Your task to perform on an android device: Search for "lg ultragear" on ebay, select the first entry, and add it to the cart. Image 0: 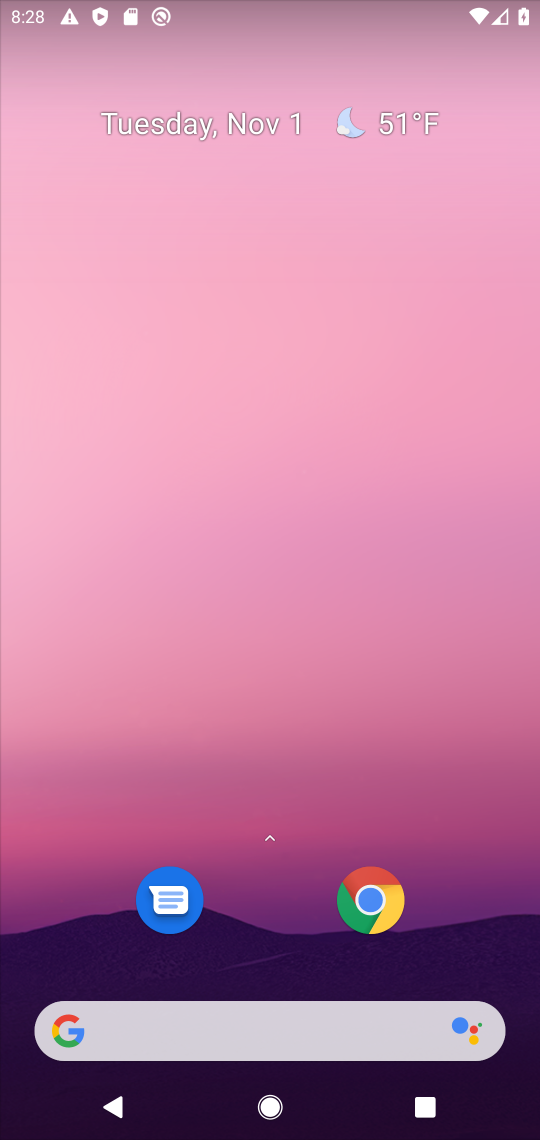
Step 0: drag from (353, 1100) to (342, 42)
Your task to perform on an android device: Search for "lg ultragear" on ebay, select the first entry, and add it to the cart. Image 1: 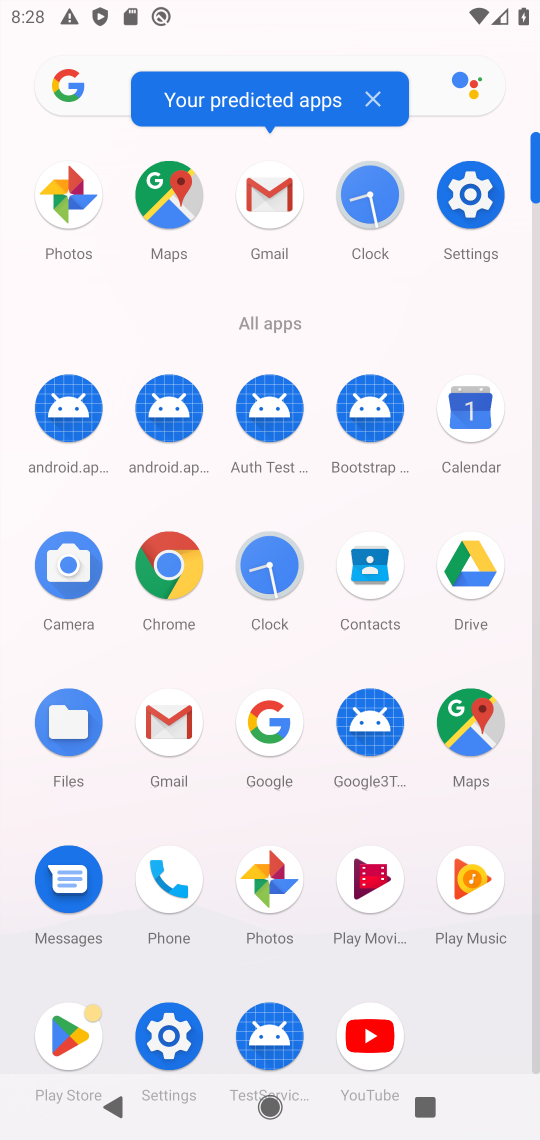
Step 1: click (172, 552)
Your task to perform on an android device: Search for "lg ultragear" on ebay, select the first entry, and add it to the cart. Image 2: 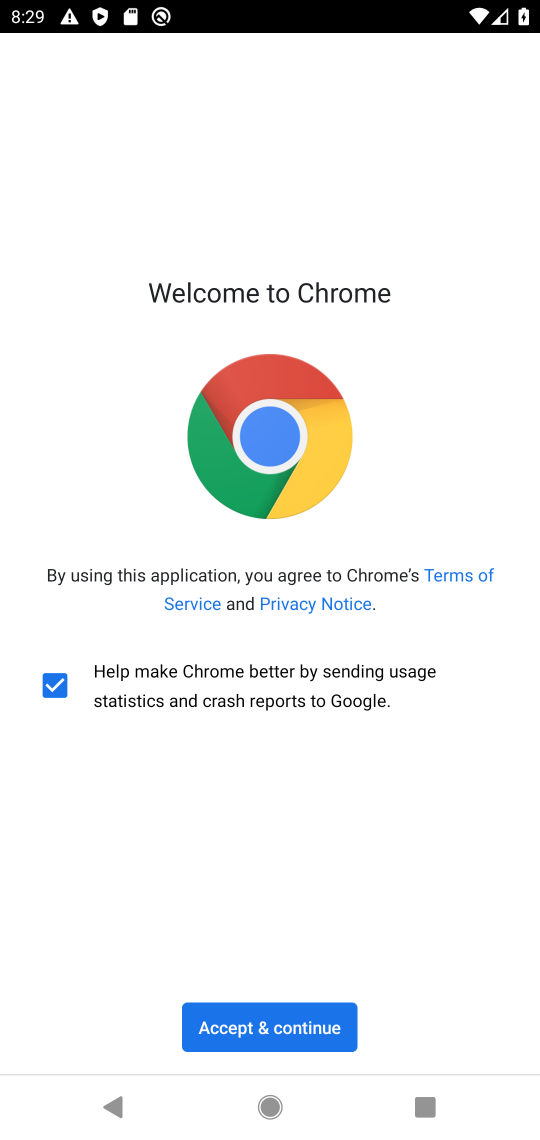
Step 2: click (252, 1024)
Your task to perform on an android device: Search for "lg ultragear" on ebay, select the first entry, and add it to the cart. Image 3: 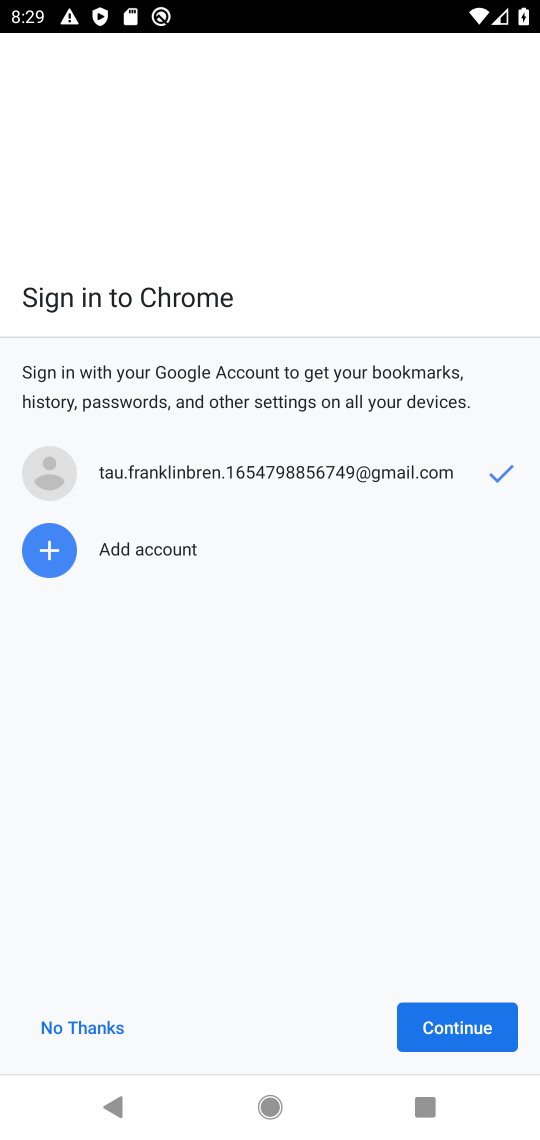
Step 3: click (446, 1030)
Your task to perform on an android device: Search for "lg ultragear" on ebay, select the first entry, and add it to the cart. Image 4: 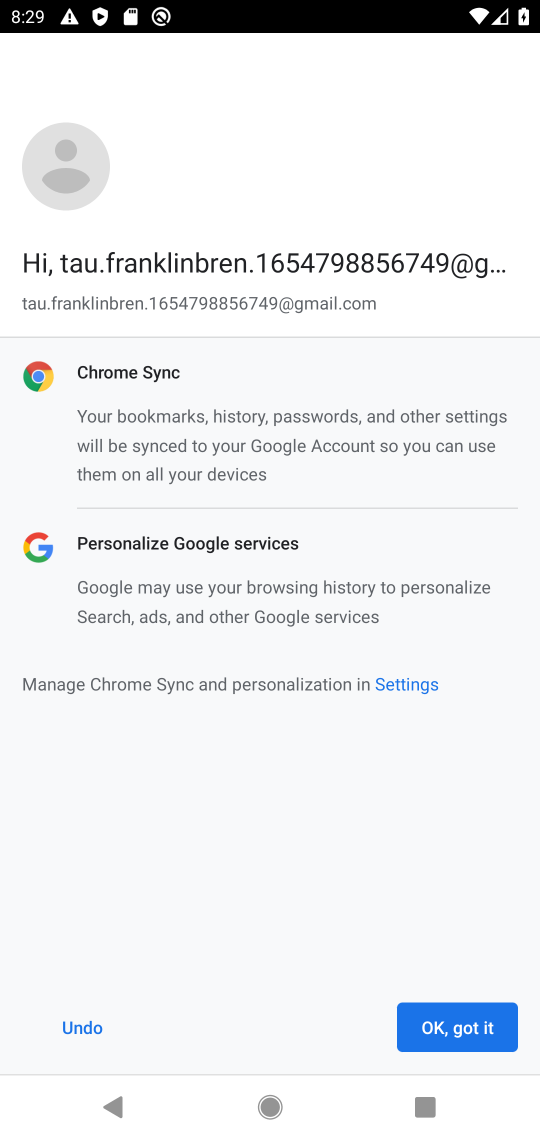
Step 4: click (443, 1028)
Your task to perform on an android device: Search for "lg ultragear" on ebay, select the first entry, and add it to the cart. Image 5: 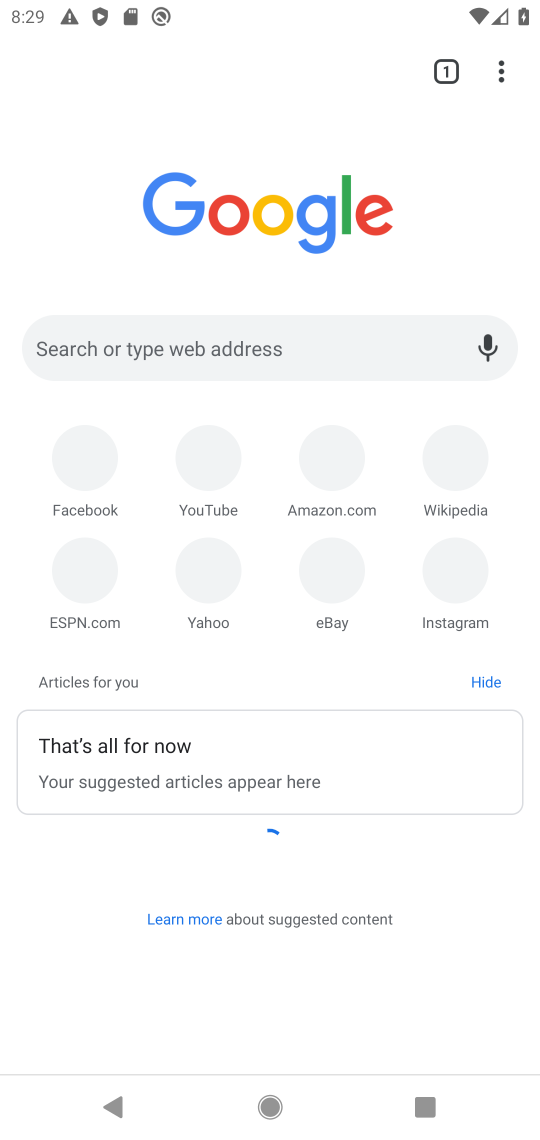
Step 5: click (224, 335)
Your task to perform on an android device: Search for "lg ultragear" on ebay, select the first entry, and add it to the cart. Image 6: 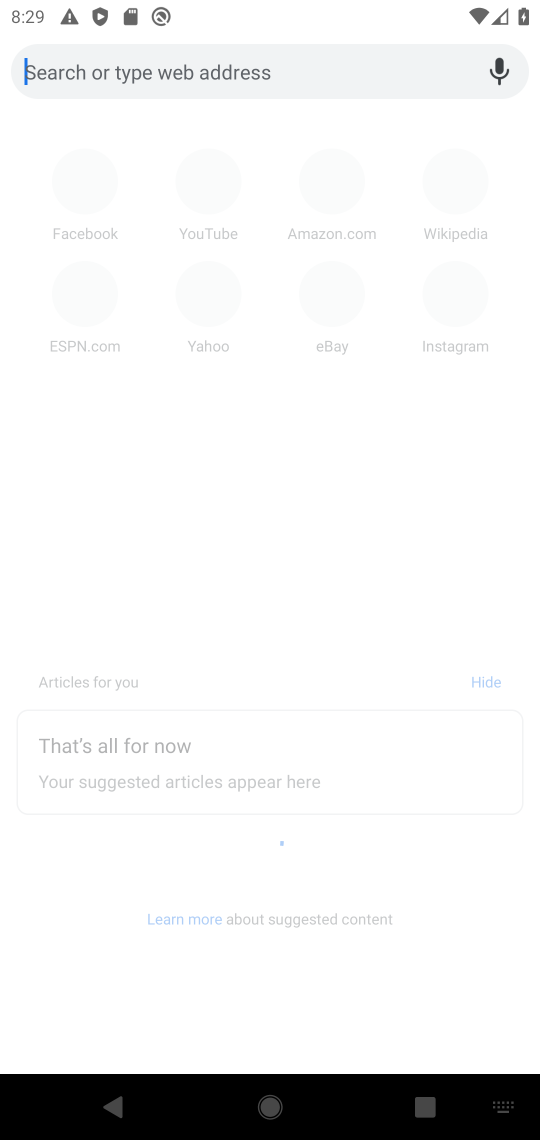
Step 6: type "ebay"
Your task to perform on an android device: Search for "lg ultragear" on ebay, select the first entry, and add it to the cart. Image 7: 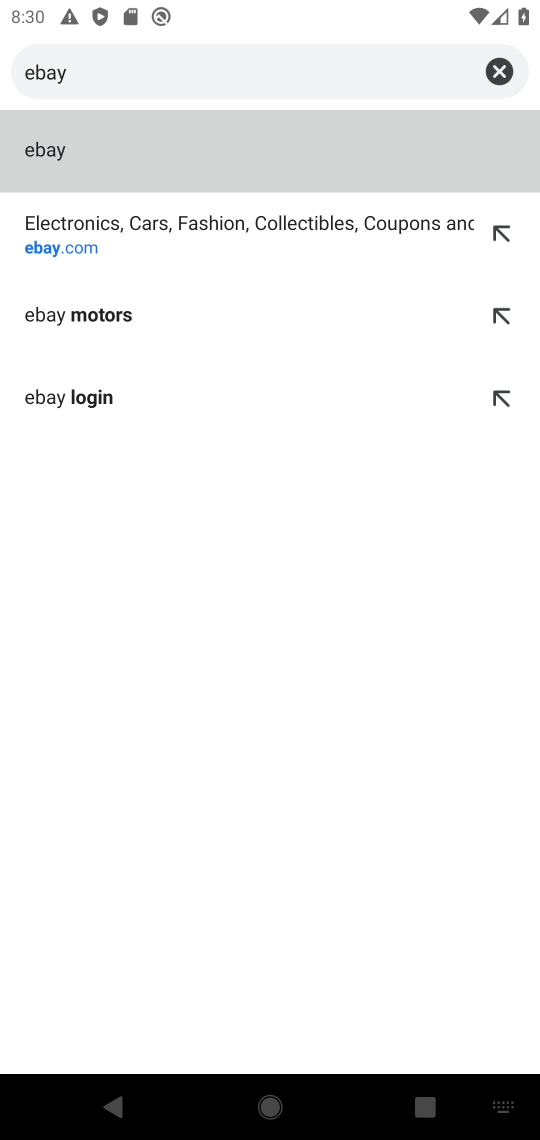
Step 7: click (29, 248)
Your task to perform on an android device: Search for "lg ultragear" on ebay, select the first entry, and add it to the cart. Image 8: 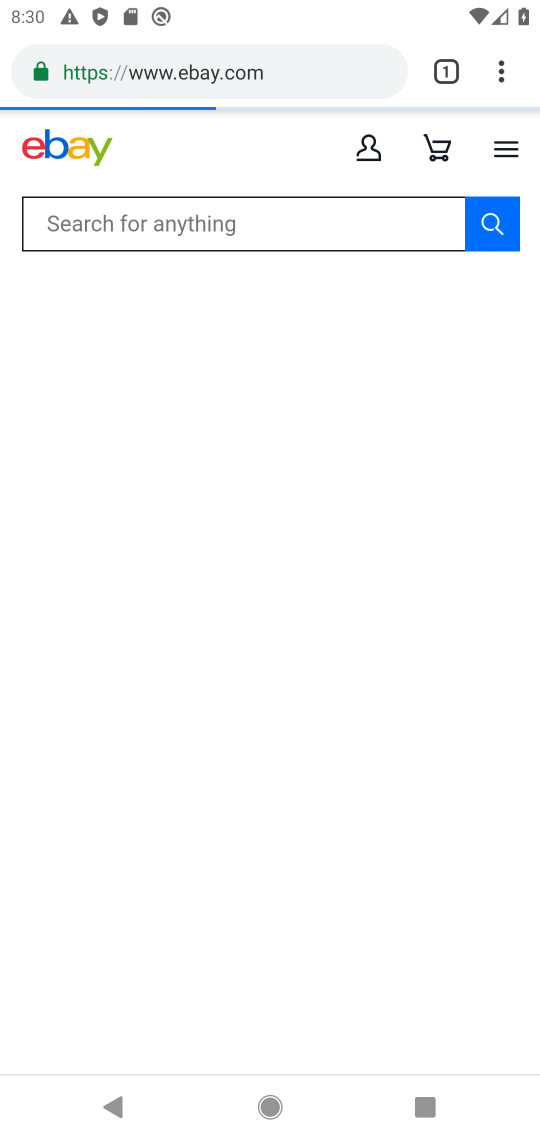
Step 8: click (194, 222)
Your task to perform on an android device: Search for "lg ultragear" on ebay, select the first entry, and add it to the cart. Image 9: 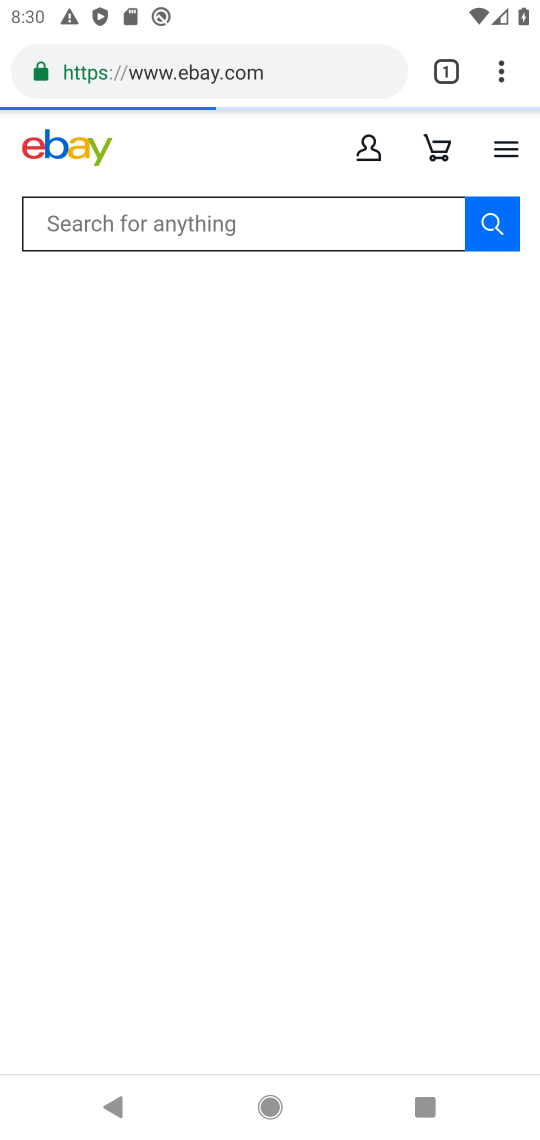
Step 9: click (180, 216)
Your task to perform on an android device: Search for "lg ultragear" on ebay, select the first entry, and add it to the cart. Image 10: 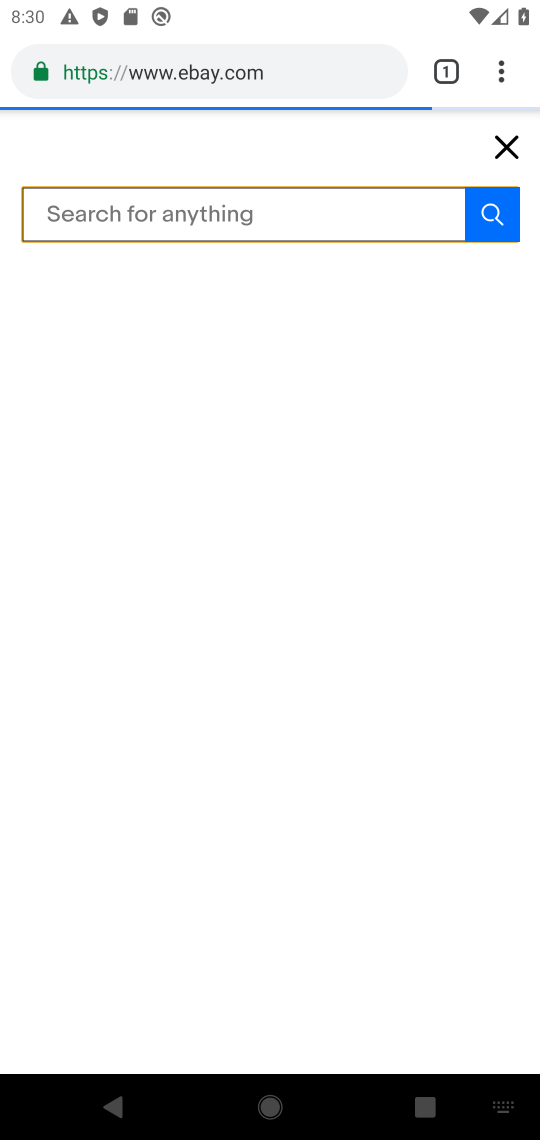
Step 10: click (106, 217)
Your task to perform on an android device: Search for "lg ultragear" on ebay, select the first entry, and add it to the cart. Image 11: 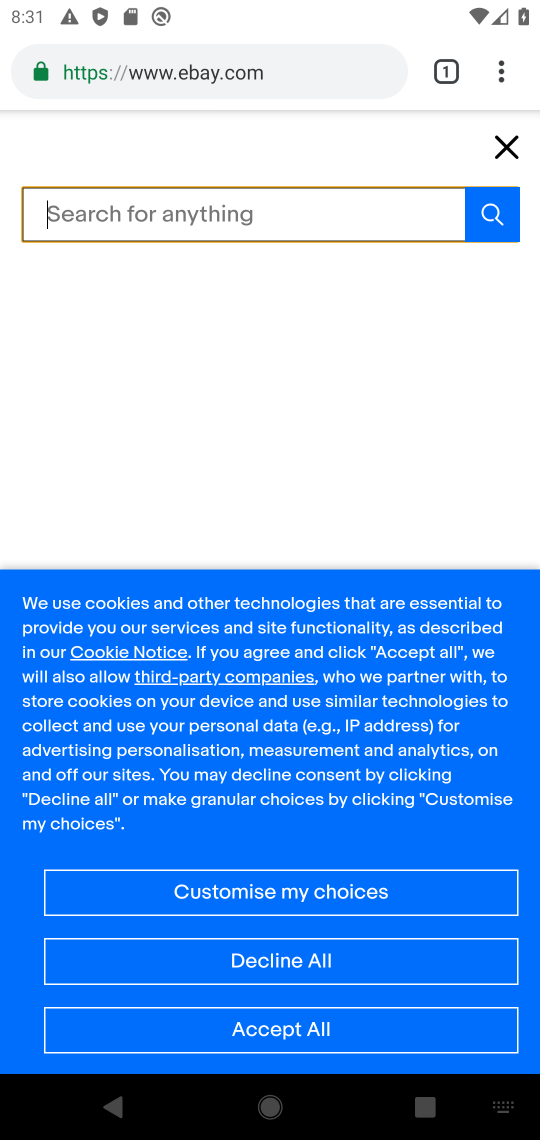
Step 11: type "lg ultragear"
Your task to perform on an android device: Search for "lg ultragear" on ebay, select the first entry, and add it to the cart. Image 12: 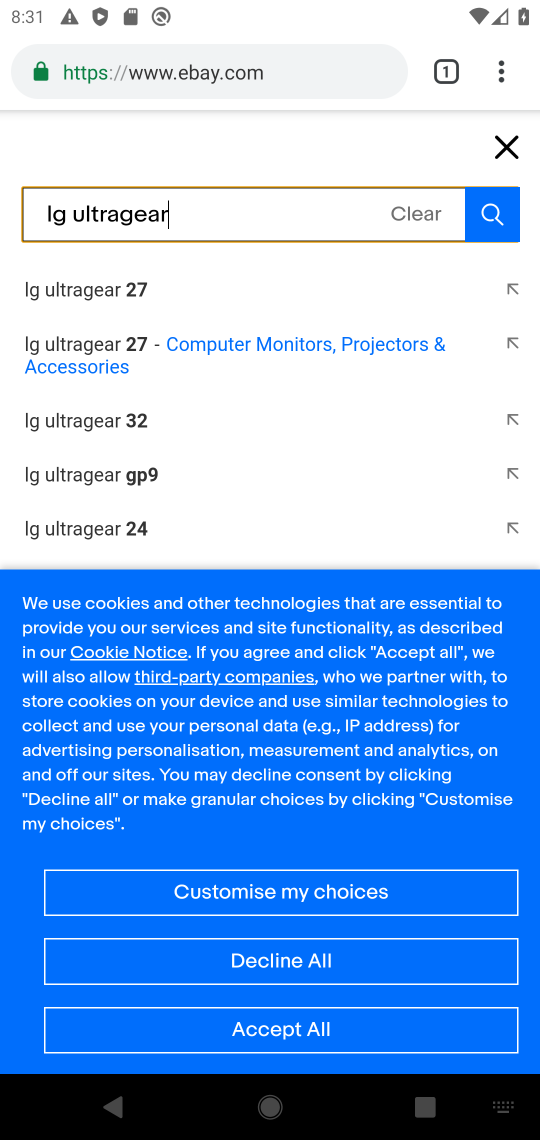
Step 12: click (485, 206)
Your task to perform on an android device: Search for "lg ultragear" on ebay, select the first entry, and add it to the cart. Image 13: 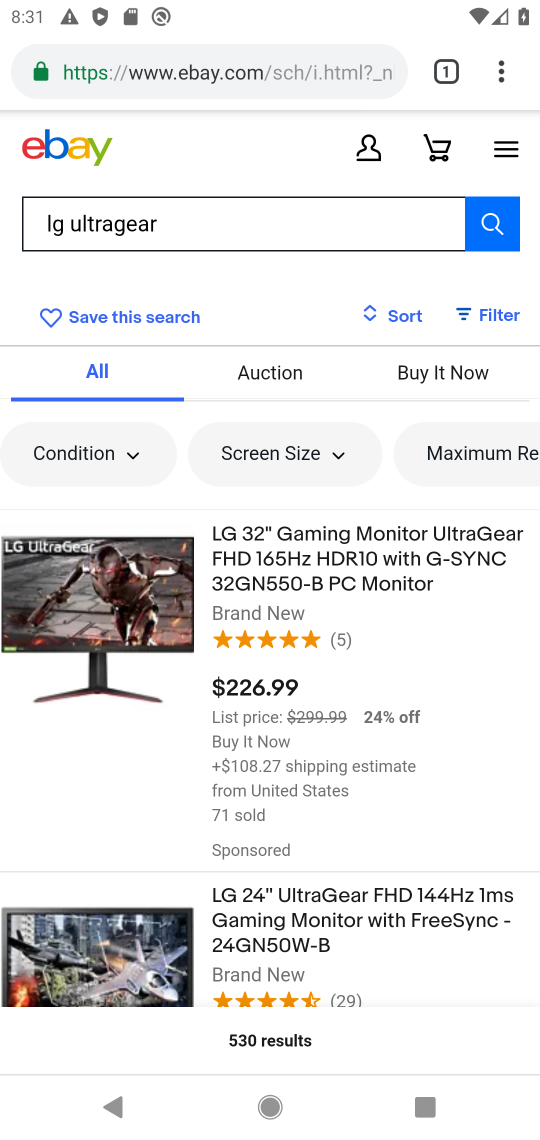
Step 13: click (137, 649)
Your task to perform on an android device: Search for "lg ultragear" on ebay, select the first entry, and add it to the cart. Image 14: 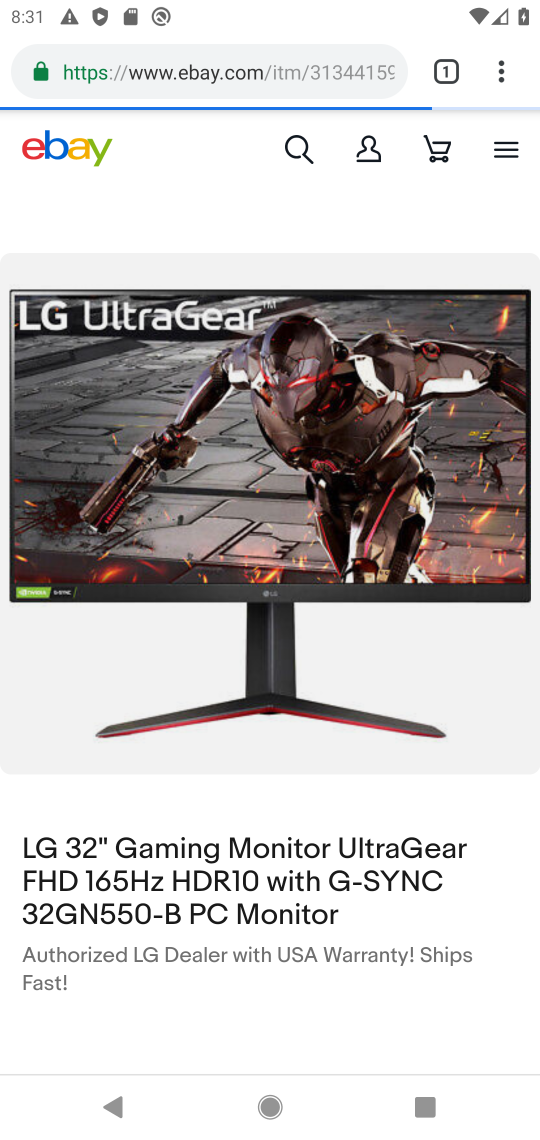
Step 14: drag from (349, 865) to (247, 331)
Your task to perform on an android device: Search for "lg ultragear" on ebay, select the first entry, and add it to the cart. Image 15: 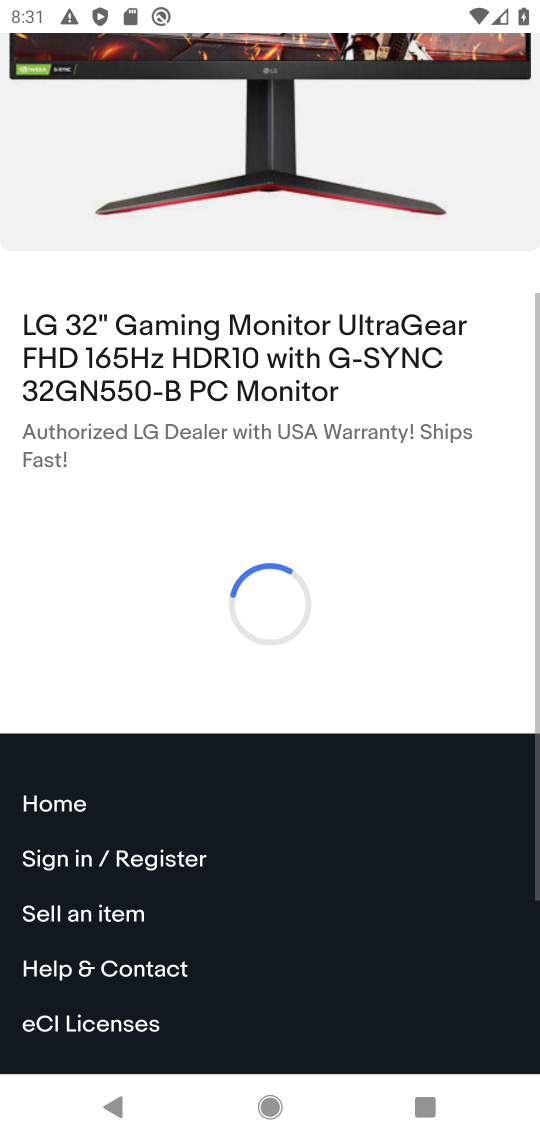
Step 15: drag from (316, 828) to (305, 296)
Your task to perform on an android device: Search for "lg ultragear" on ebay, select the first entry, and add it to the cart. Image 16: 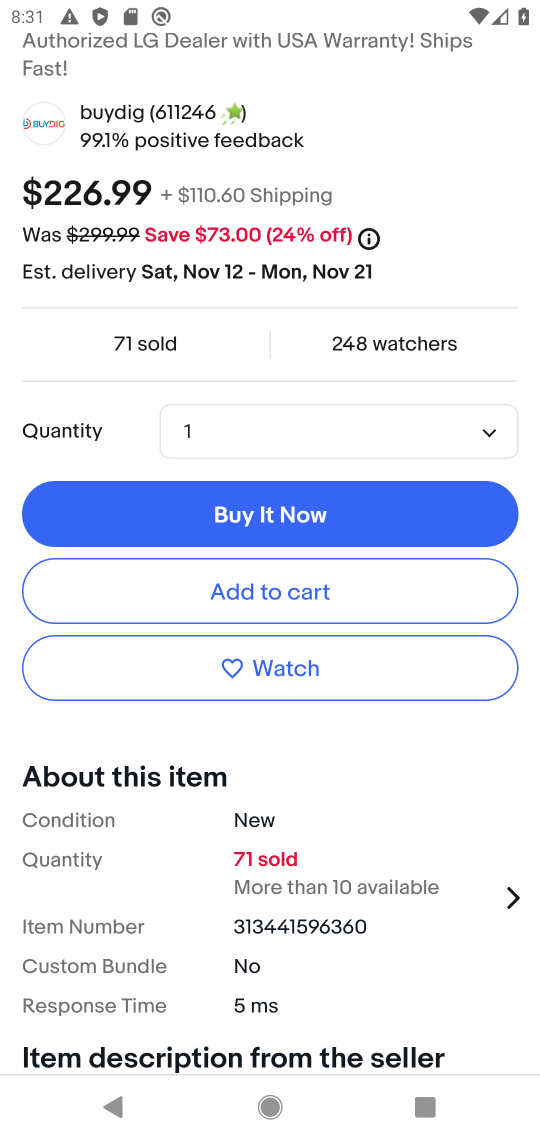
Step 16: click (263, 585)
Your task to perform on an android device: Search for "lg ultragear" on ebay, select the first entry, and add it to the cart. Image 17: 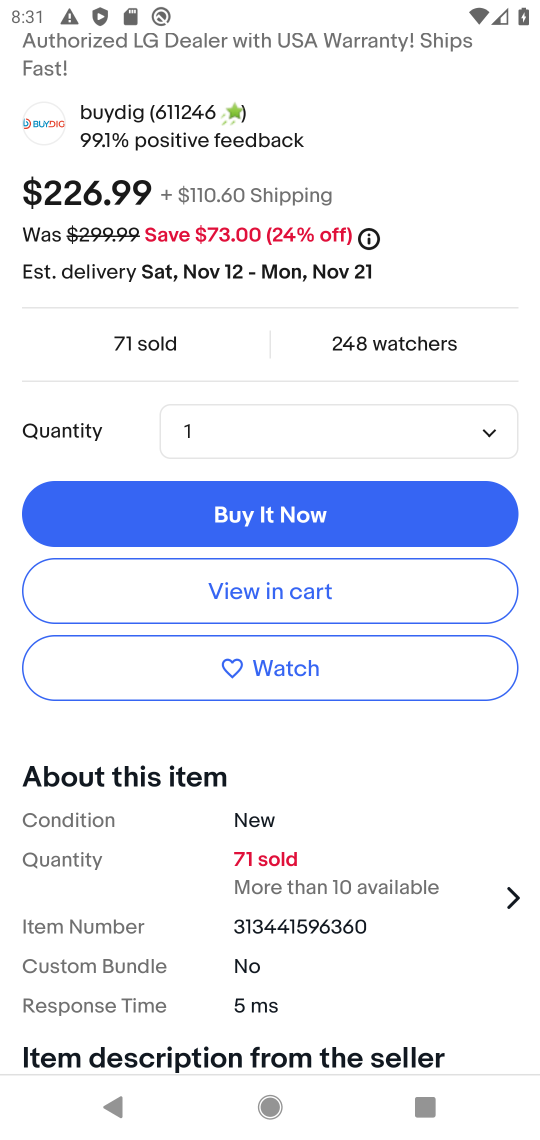
Step 17: task complete